Your task to perform on an android device: open app "Clock" (install if not already installed) Image 0: 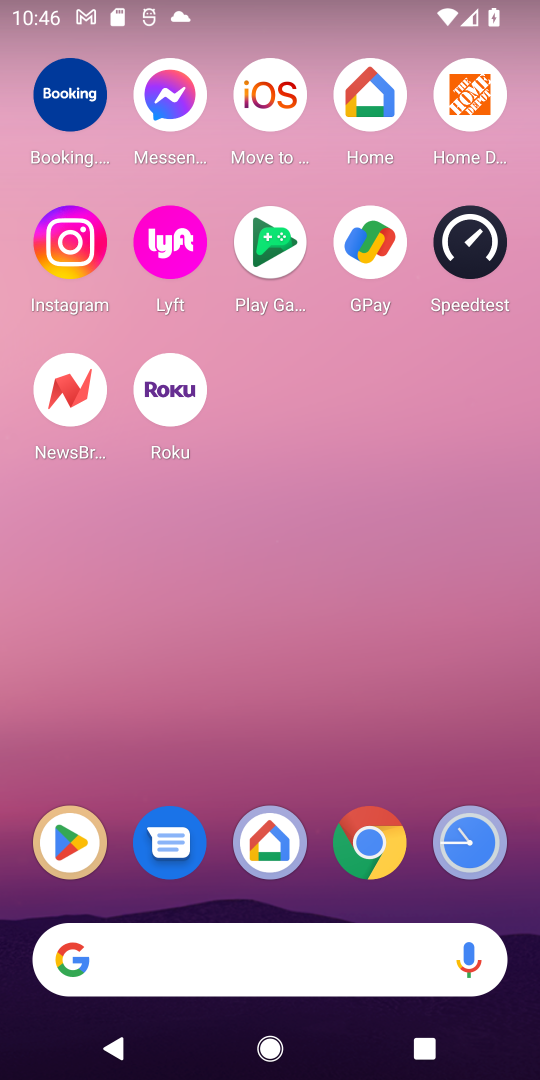
Step 0: click (477, 847)
Your task to perform on an android device: open app "Clock" (install if not already installed) Image 1: 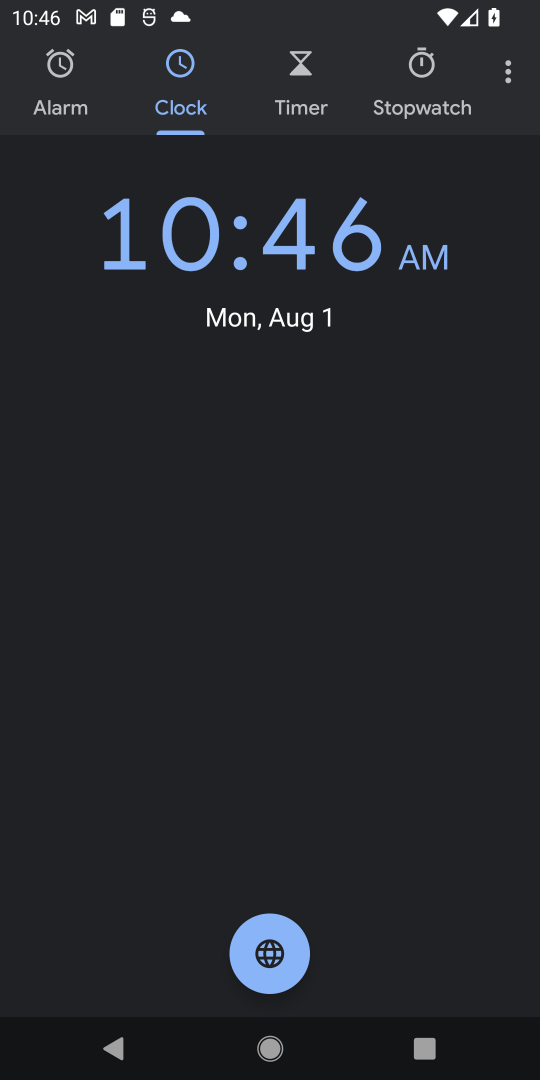
Step 1: task complete